Your task to perform on an android device: open app "Venmo" Image 0: 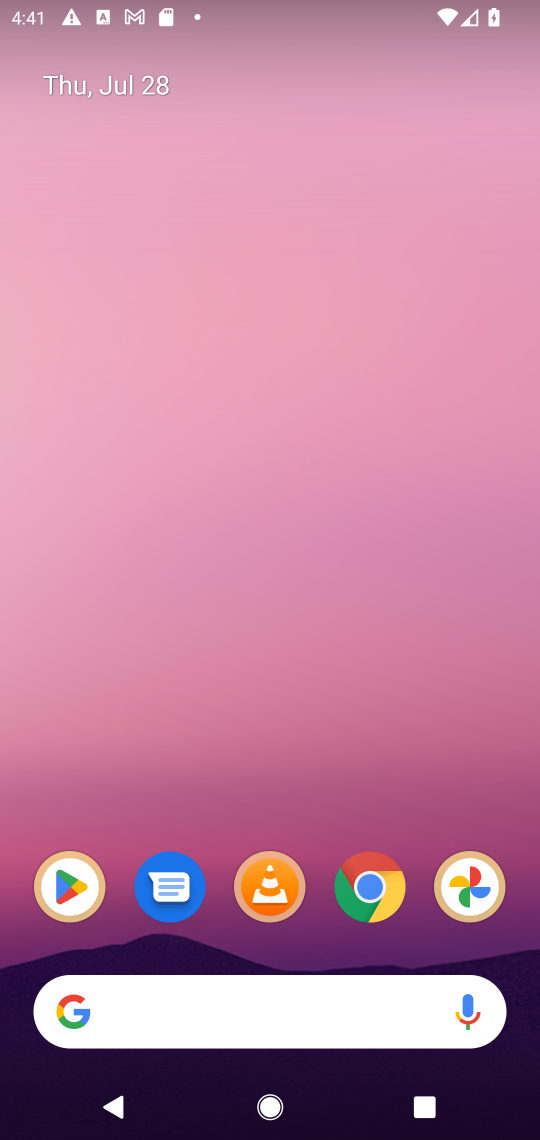
Step 0: click (76, 907)
Your task to perform on an android device: open app "Venmo" Image 1: 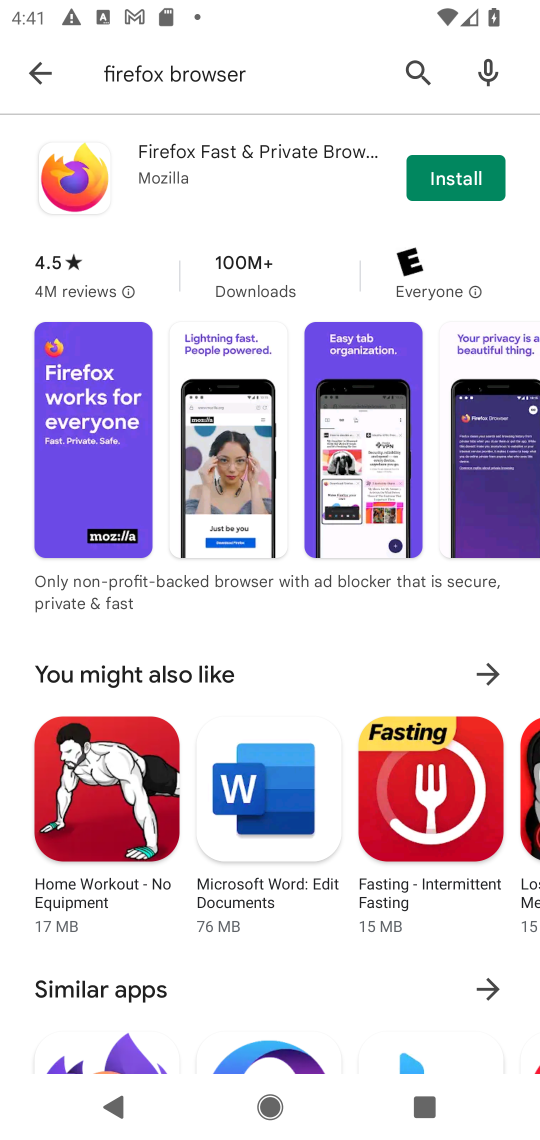
Step 1: click (217, 71)
Your task to perform on an android device: open app "Venmo" Image 2: 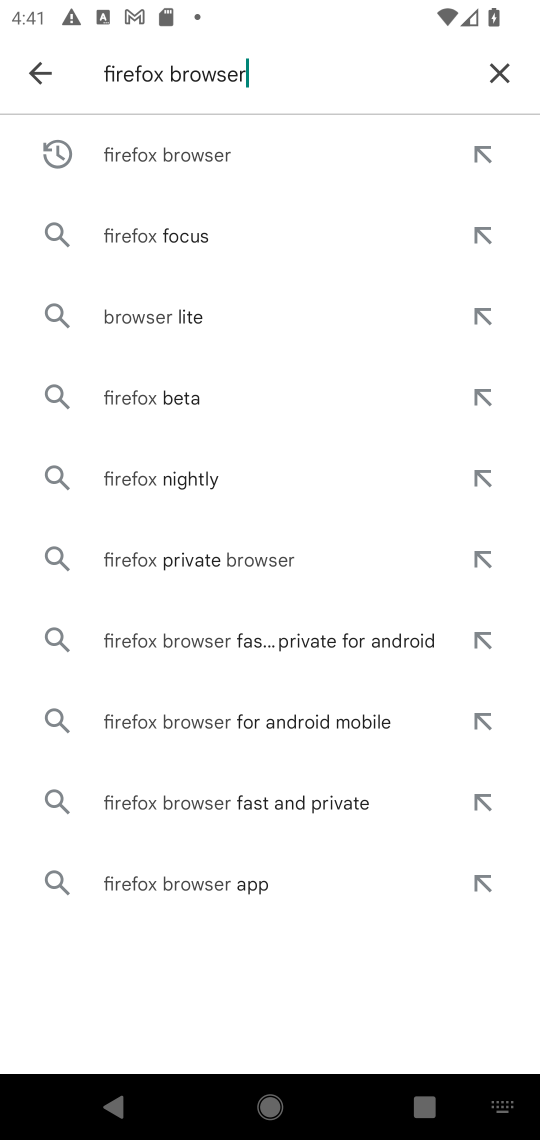
Step 2: click (505, 59)
Your task to perform on an android device: open app "Venmo" Image 3: 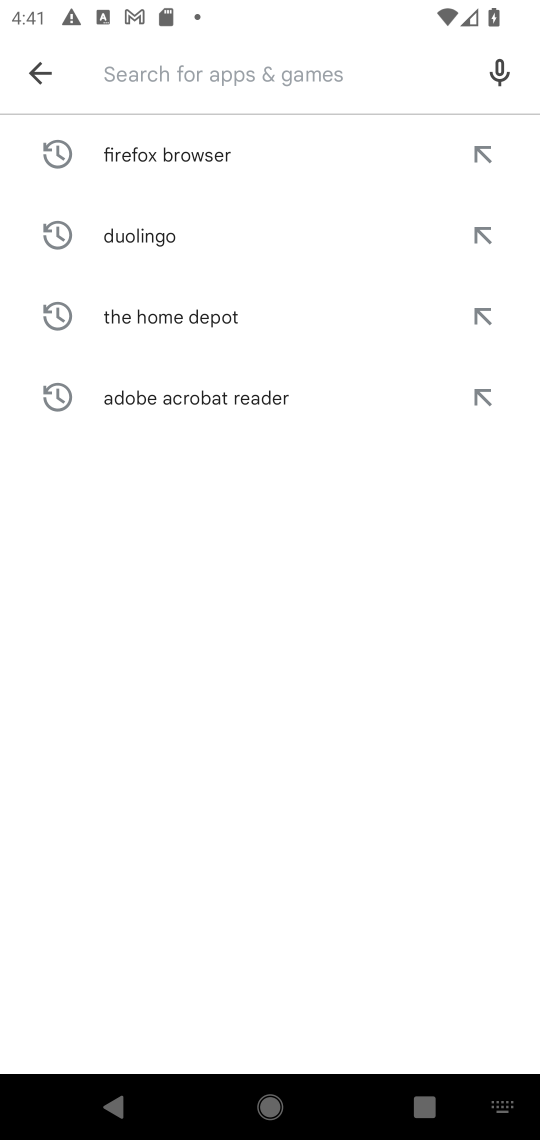
Step 3: type "venmo"
Your task to perform on an android device: open app "Venmo" Image 4: 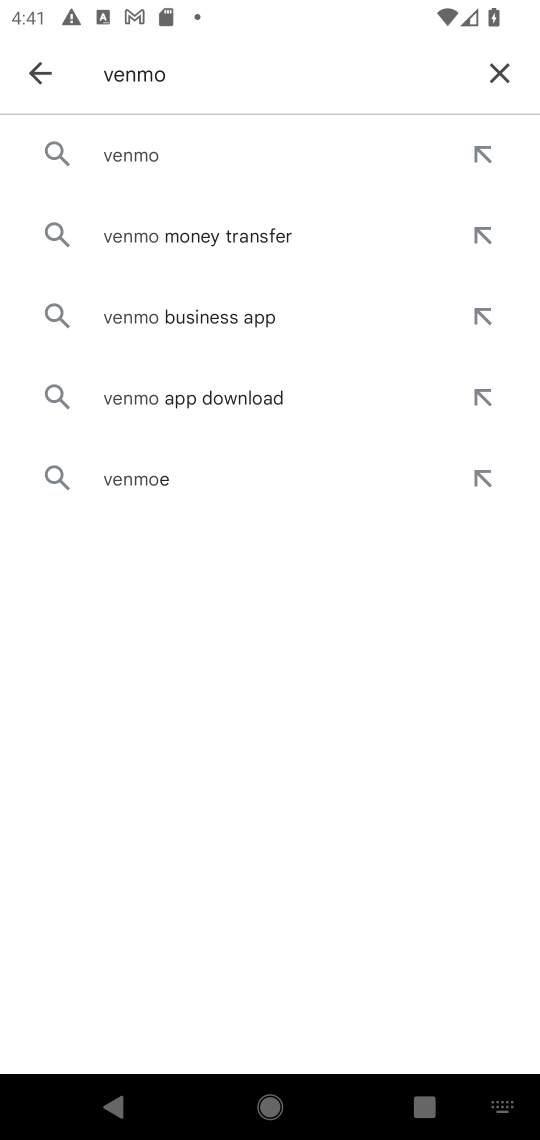
Step 4: click (144, 140)
Your task to perform on an android device: open app "Venmo" Image 5: 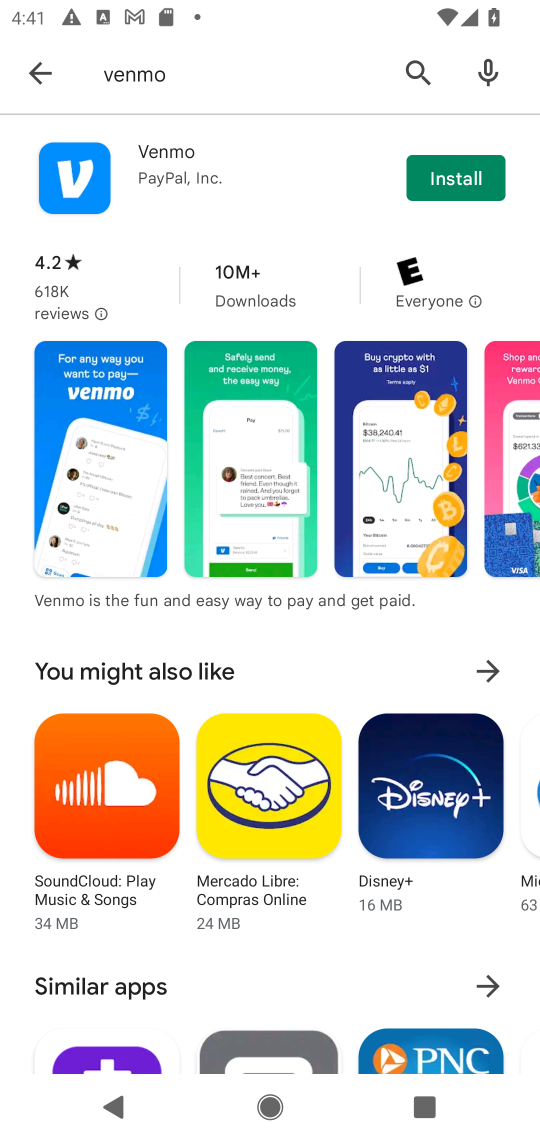
Step 5: task complete